Your task to perform on an android device: Clear the shopping cart on bestbuy. Add logitech g910 to the cart on bestbuy, then select checkout. Image 0: 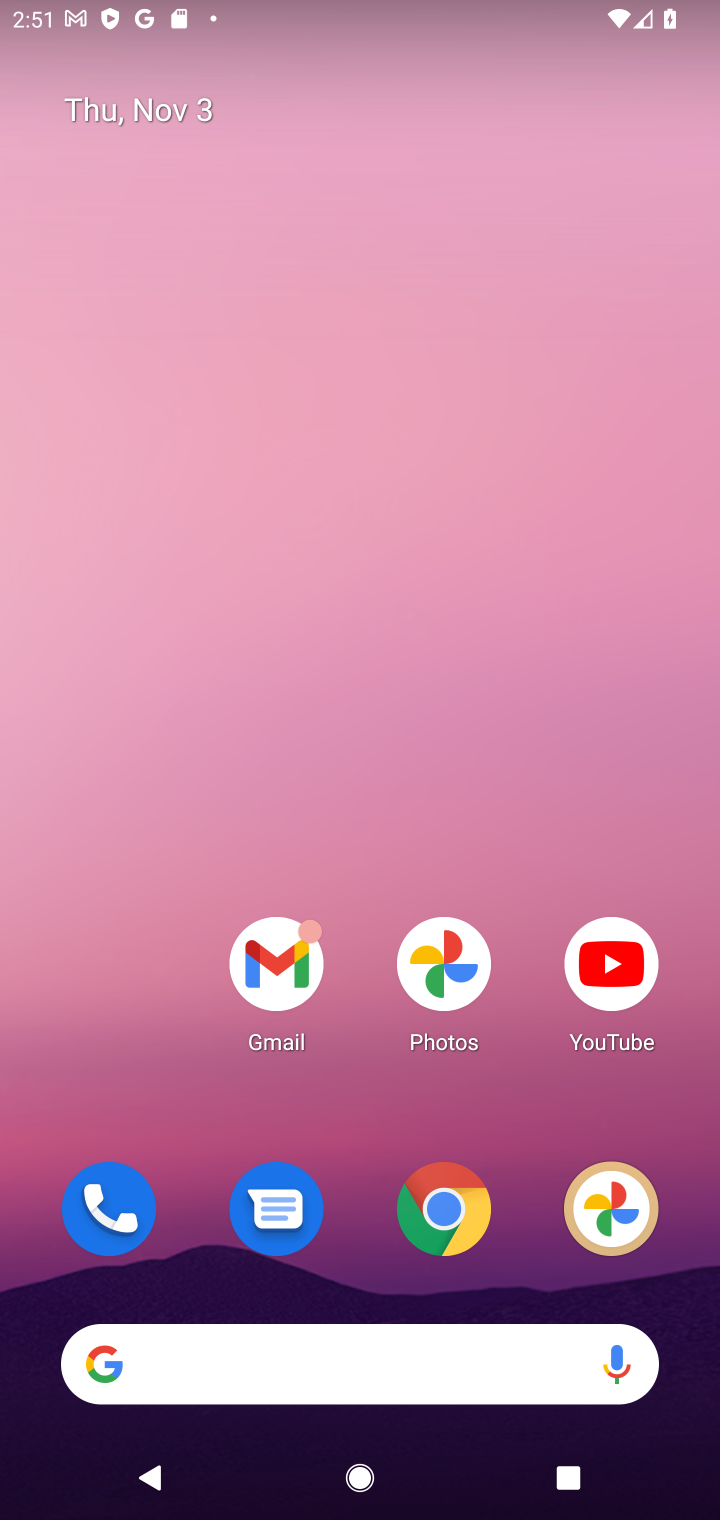
Step 0: click (433, 1215)
Your task to perform on an android device: Clear the shopping cart on bestbuy. Add logitech g910 to the cart on bestbuy, then select checkout. Image 1: 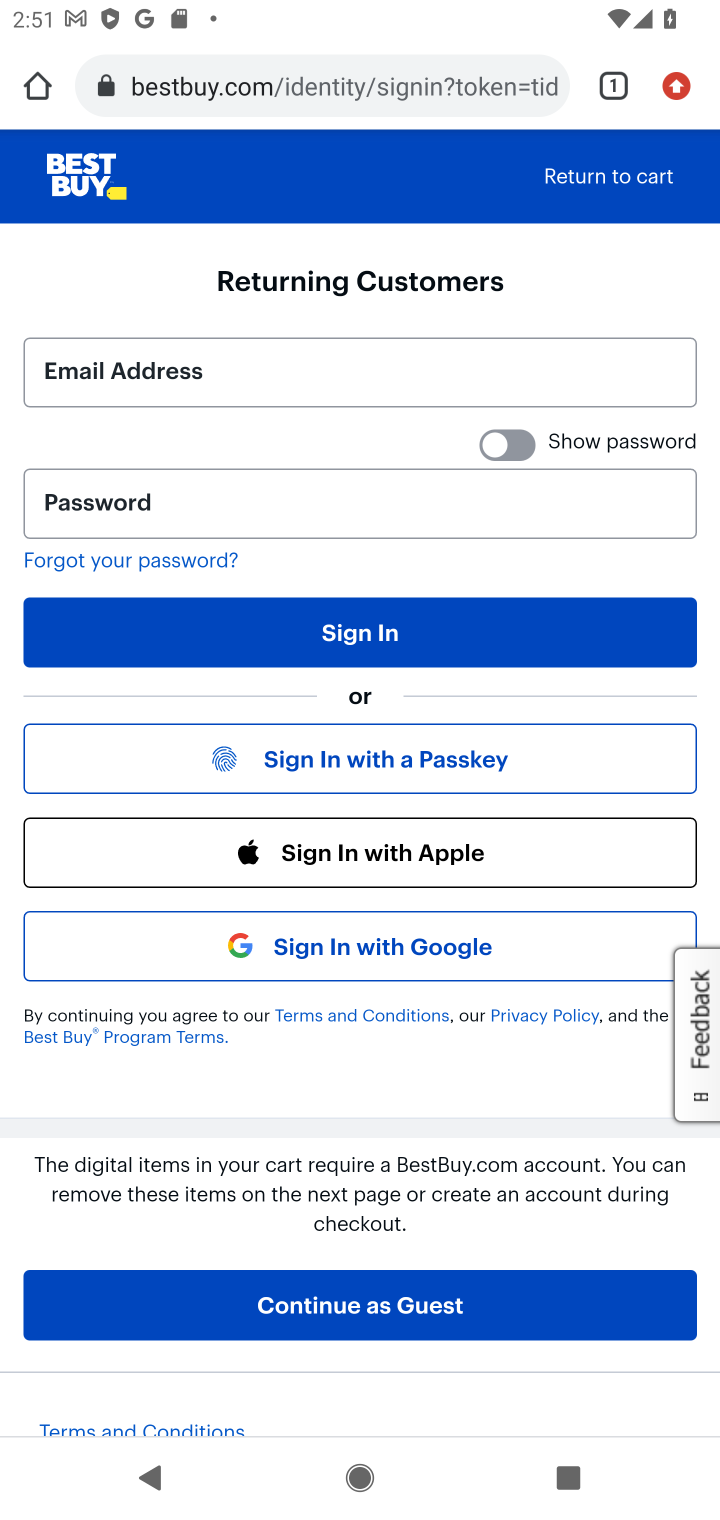
Step 1: click (579, 181)
Your task to perform on an android device: Clear the shopping cart on bestbuy. Add logitech g910 to the cart on bestbuy, then select checkout. Image 2: 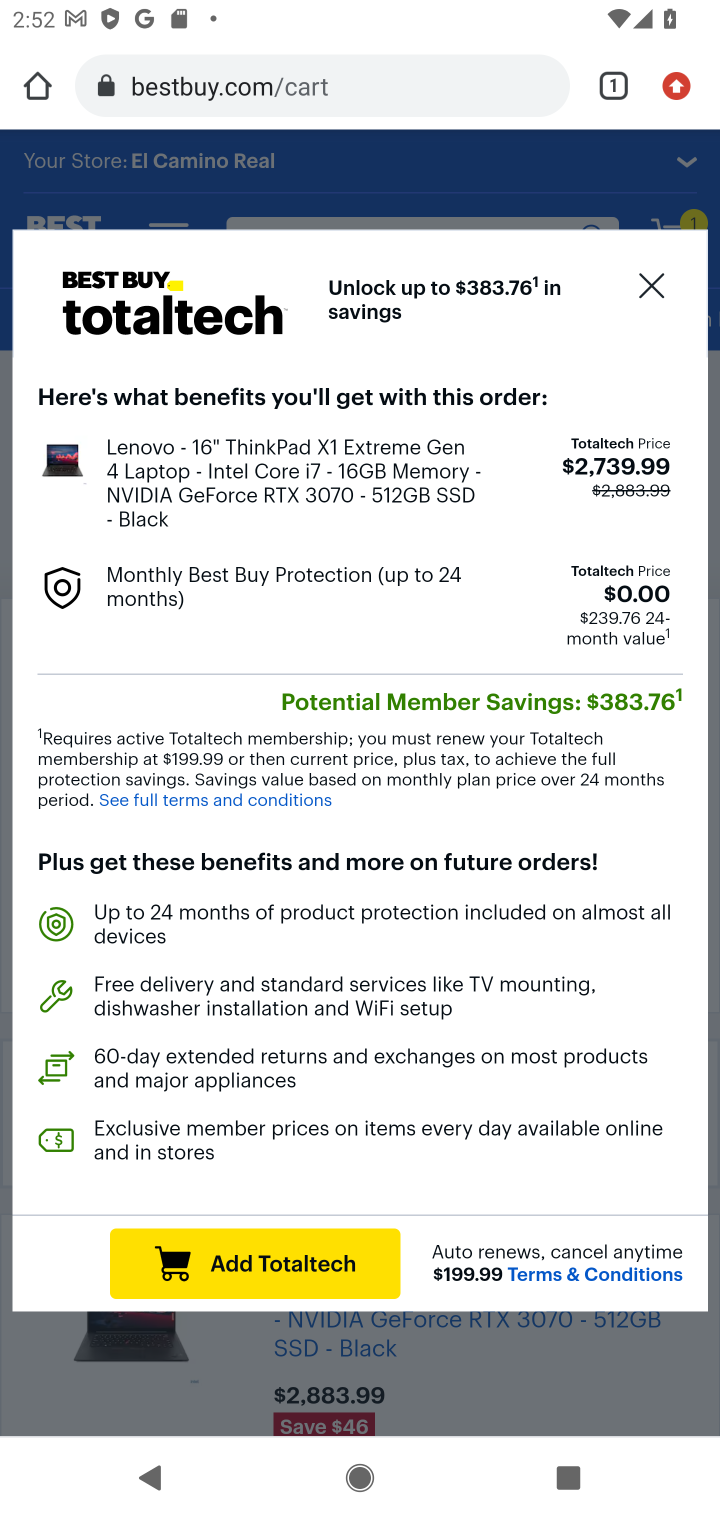
Step 2: click (664, 285)
Your task to perform on an android device: Clear the shopping cart on bestbuy. Add logitech g910 to the cart on bestbuy, then select checkout. Image 3: 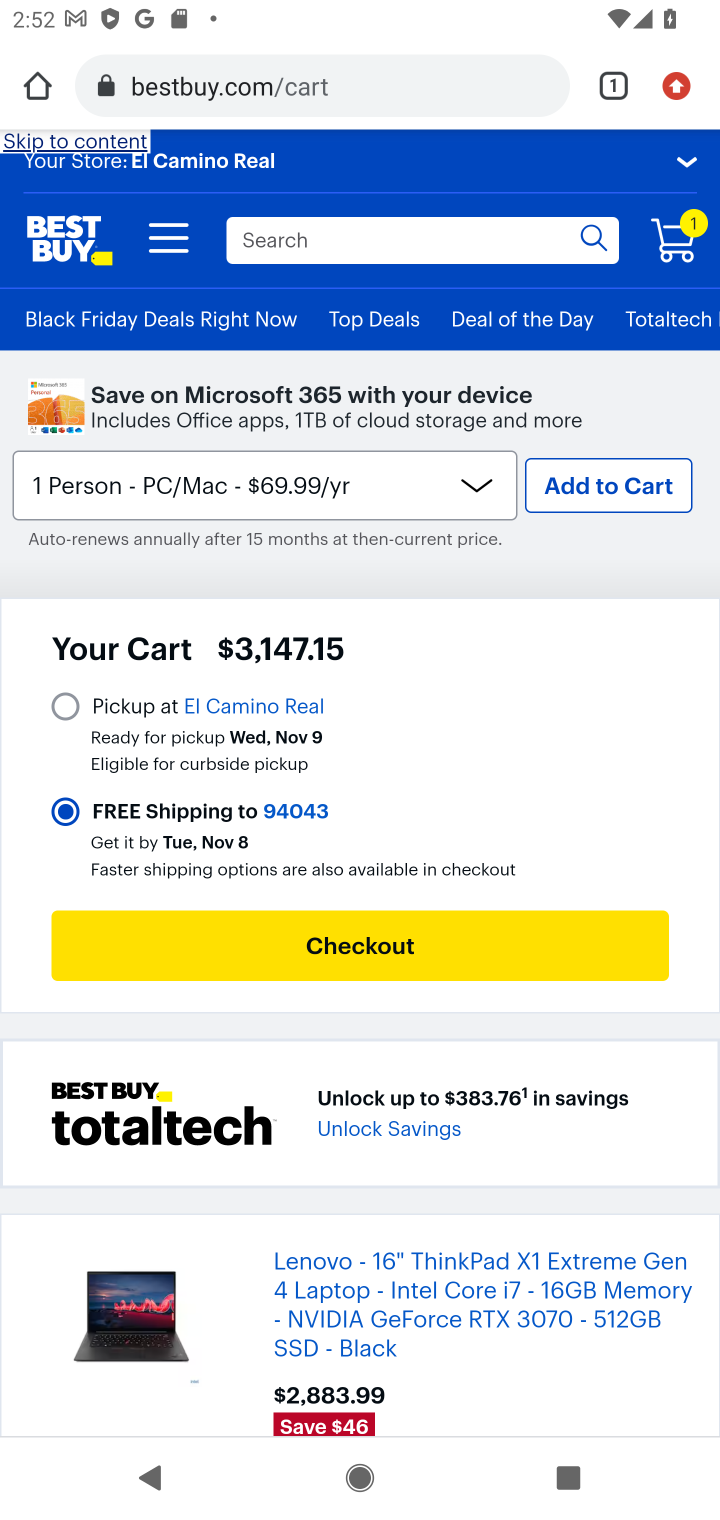
Step 3: drag from (448, 940) to (453, 487)
Your task to perform on an android device: Clear the shopping cart on bestbuy. Add logitech g910 to the cart on bestbuy, then select checkout. Image 4: 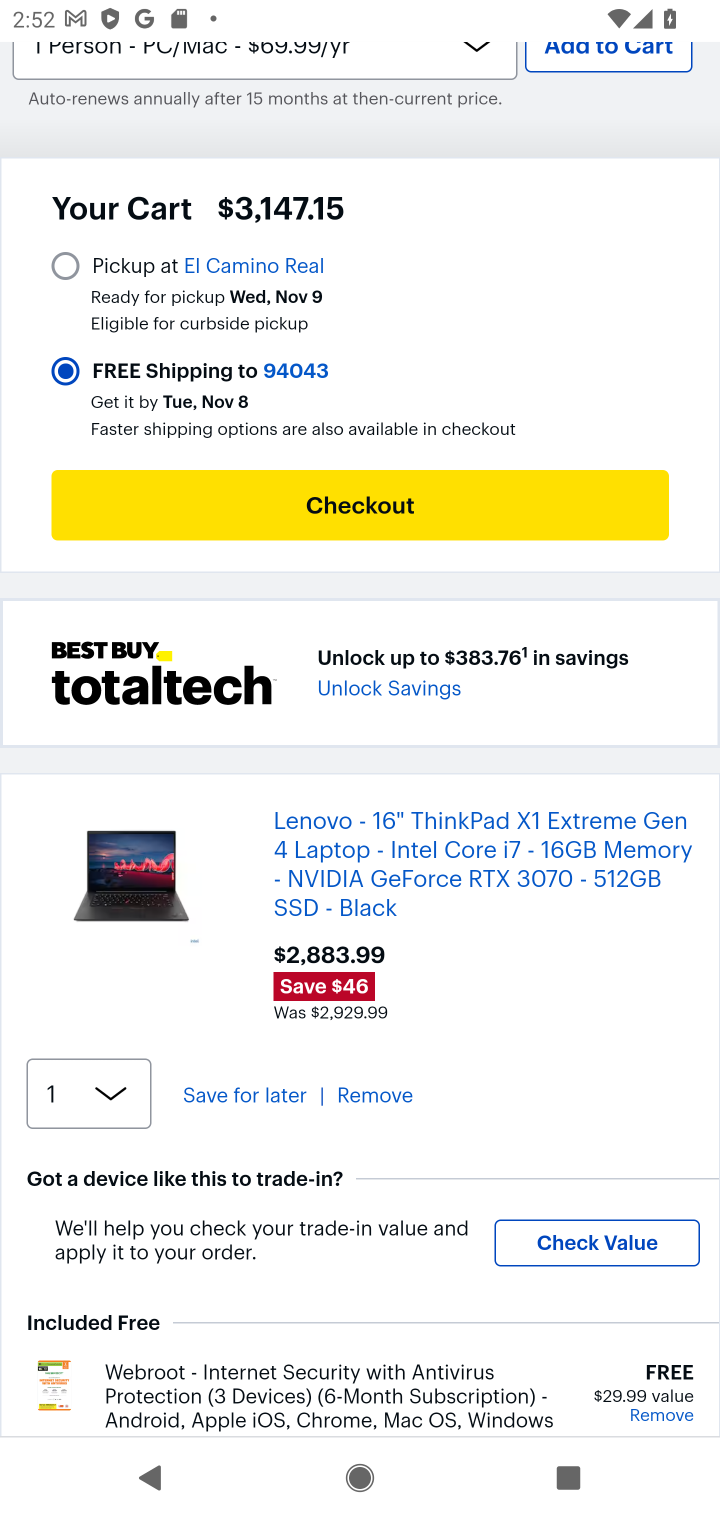
Step 4: click (367, 1099)
Your task to perform on an android device: Clear the shopping cart on bestbuy. Add logitech g910 to the cart on bestbuy, then select checkout. Image 5: 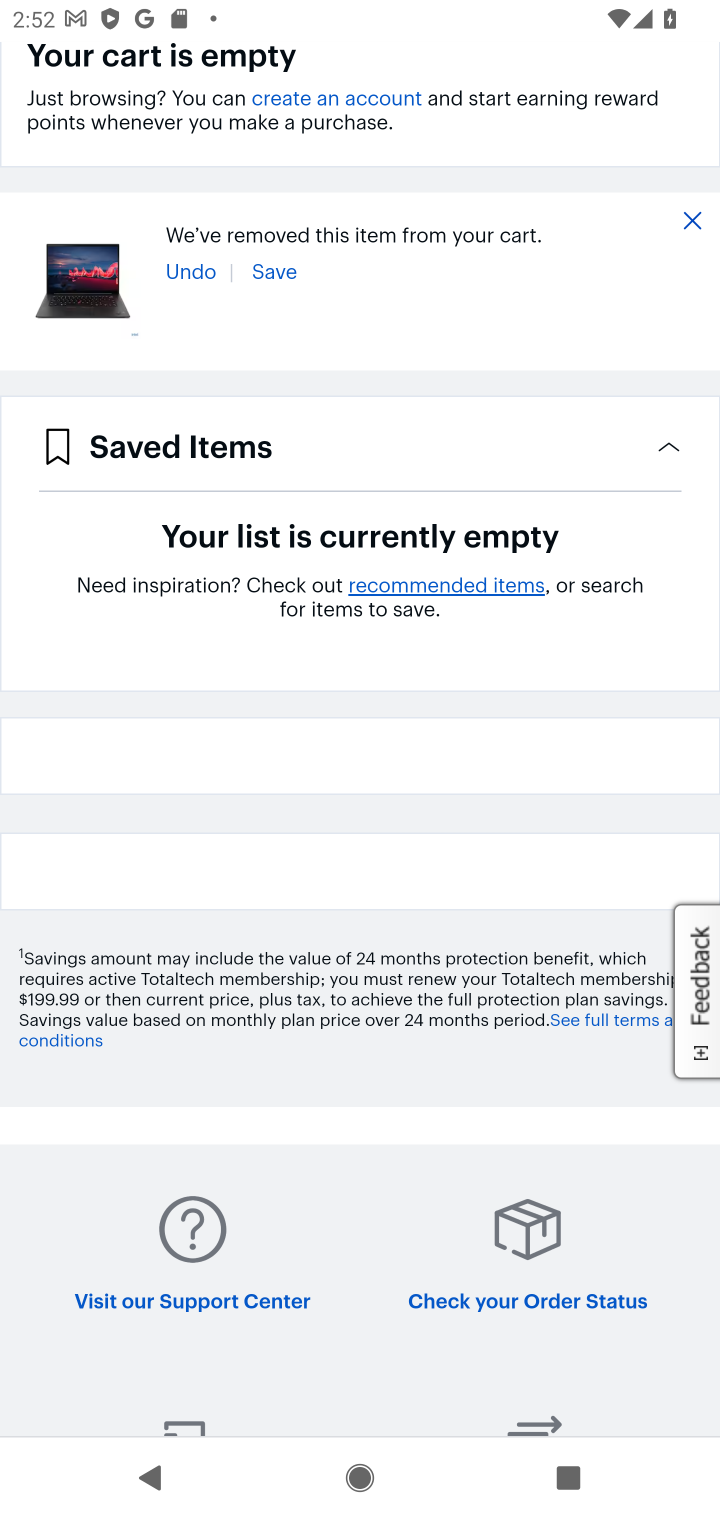
Step 5: drag from (414, 266) to (493, 1140)
Your task to perform on an android device: Clear the shopping cart on bestbuy. Add logitech g910 to the cart on bestbuy, then select checkout. Image 6: 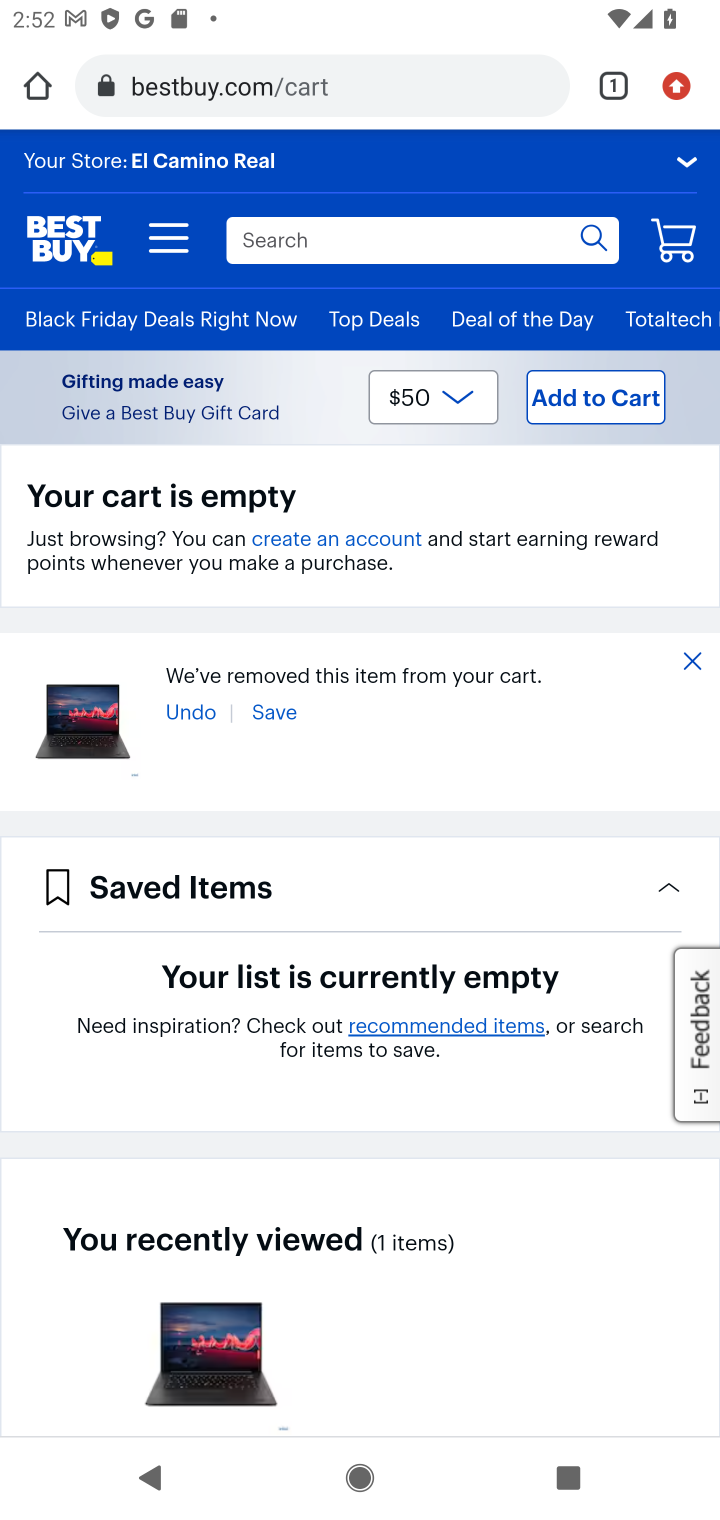
Step 6: click (432, 224)
Your task to perform on an android device: Clear the shopping cart on bestbuy. Add logitech g910 to the cart on bestbuy, then select checkout. Image 7: 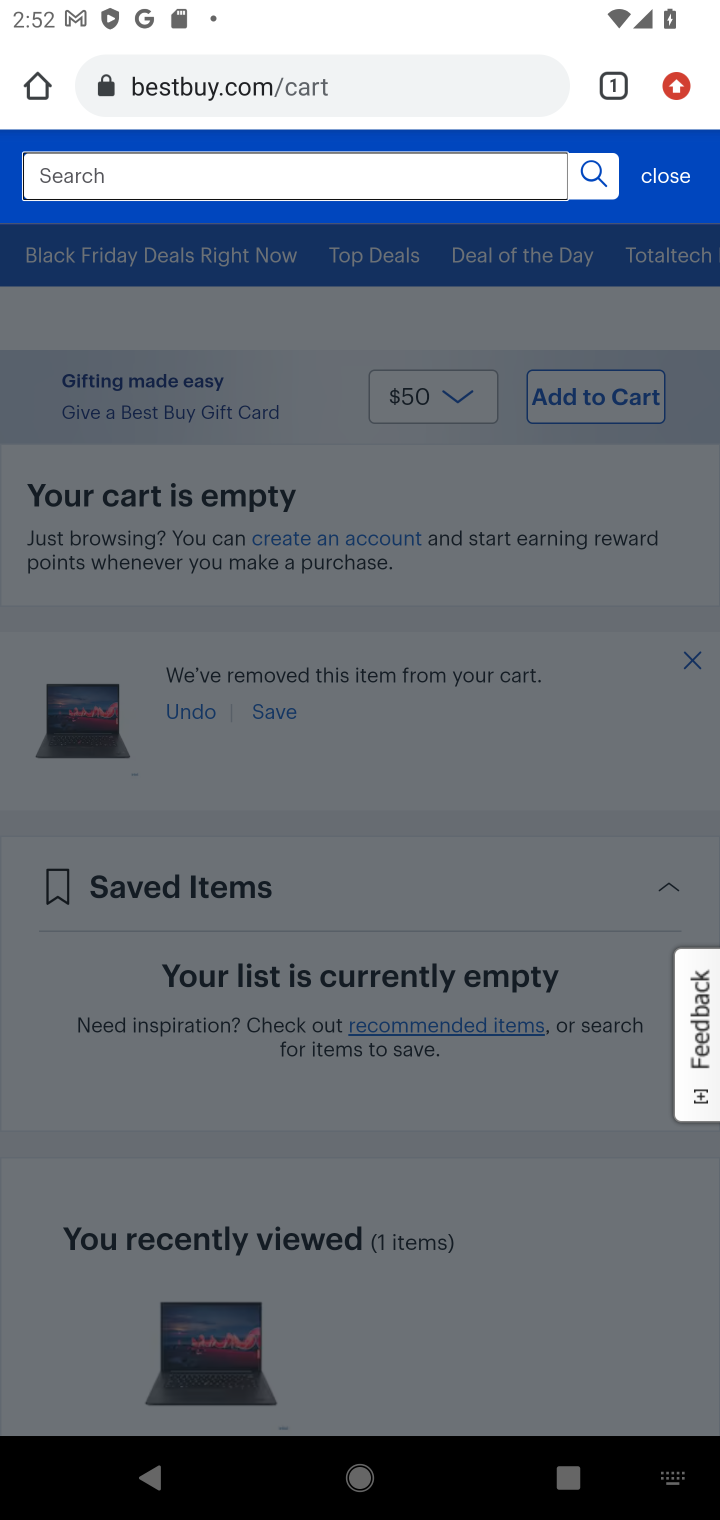
Step 7: type "logitech g910"
Your task to perform on an android device: Clear the shopping cart on bestbuy. Add logitech g910 to the cart on bestbuy, then select checkout. Image 8: 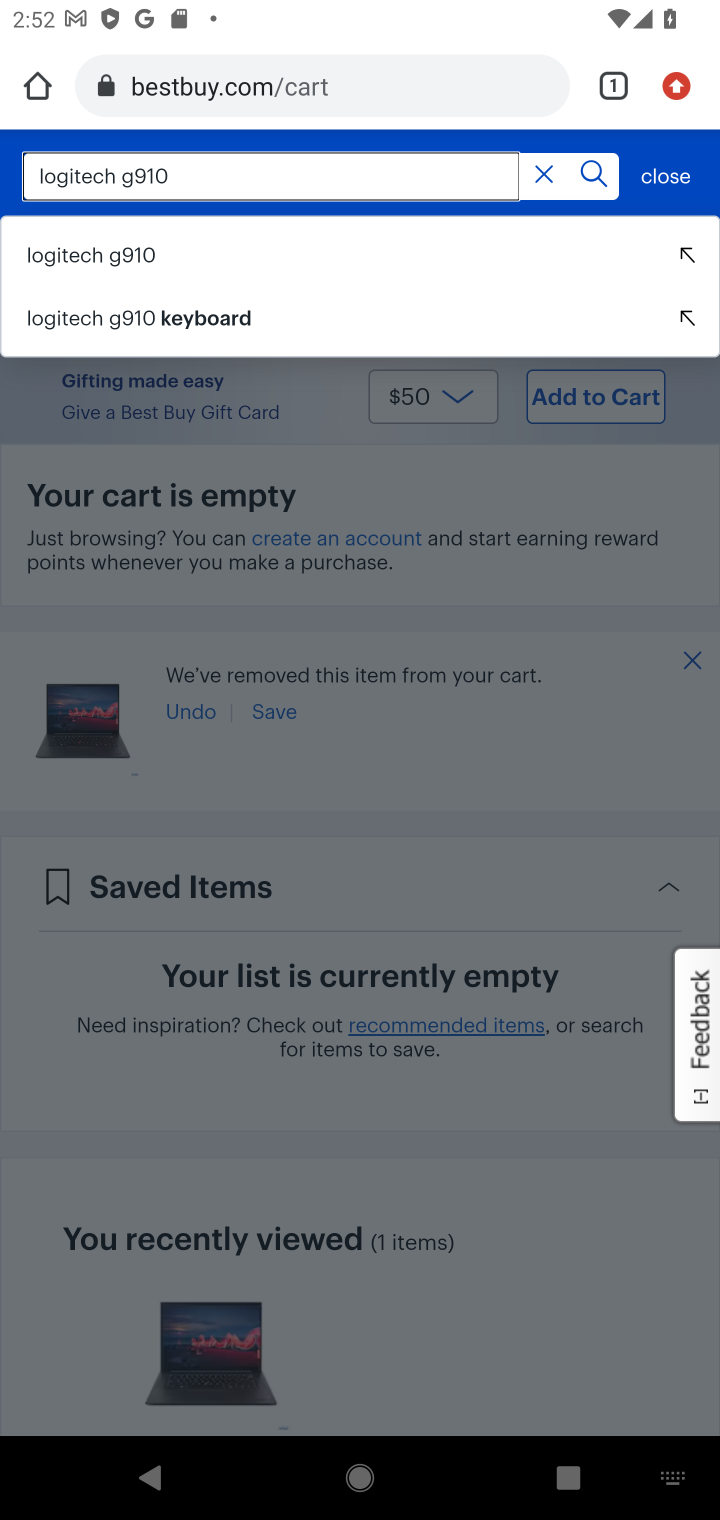
Step 8: click (106, 247)
Your task to perform on an android device: Clear the shopping cart on bestbuy. Add logitech g910 to the cart on bestbuy, then select checkout. Image 9: 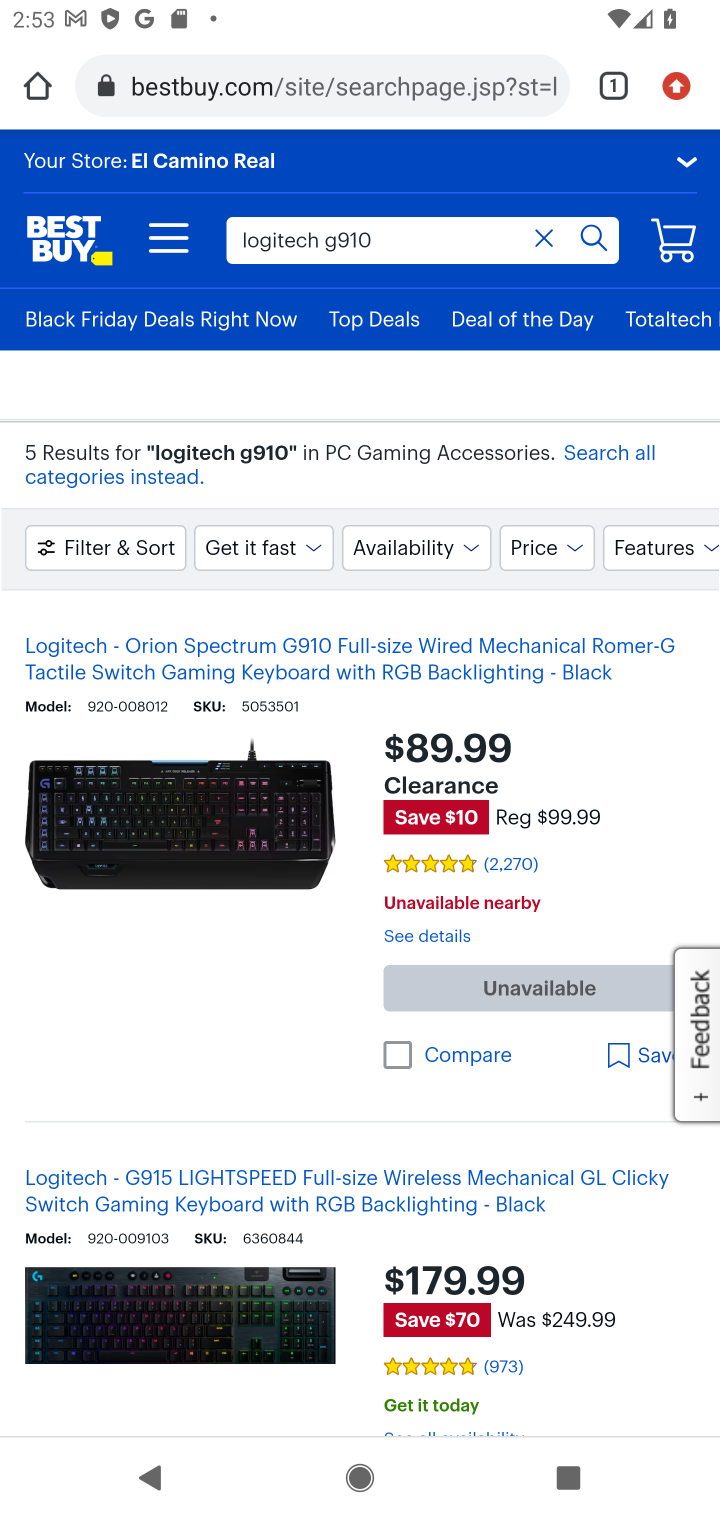
Step 9: click (281, 726)
Your task to perform on an android device: Clear the shopping cart on bestbuy. Add logitech g910 to the cart on bestbuy, then select checkout. Image 10: 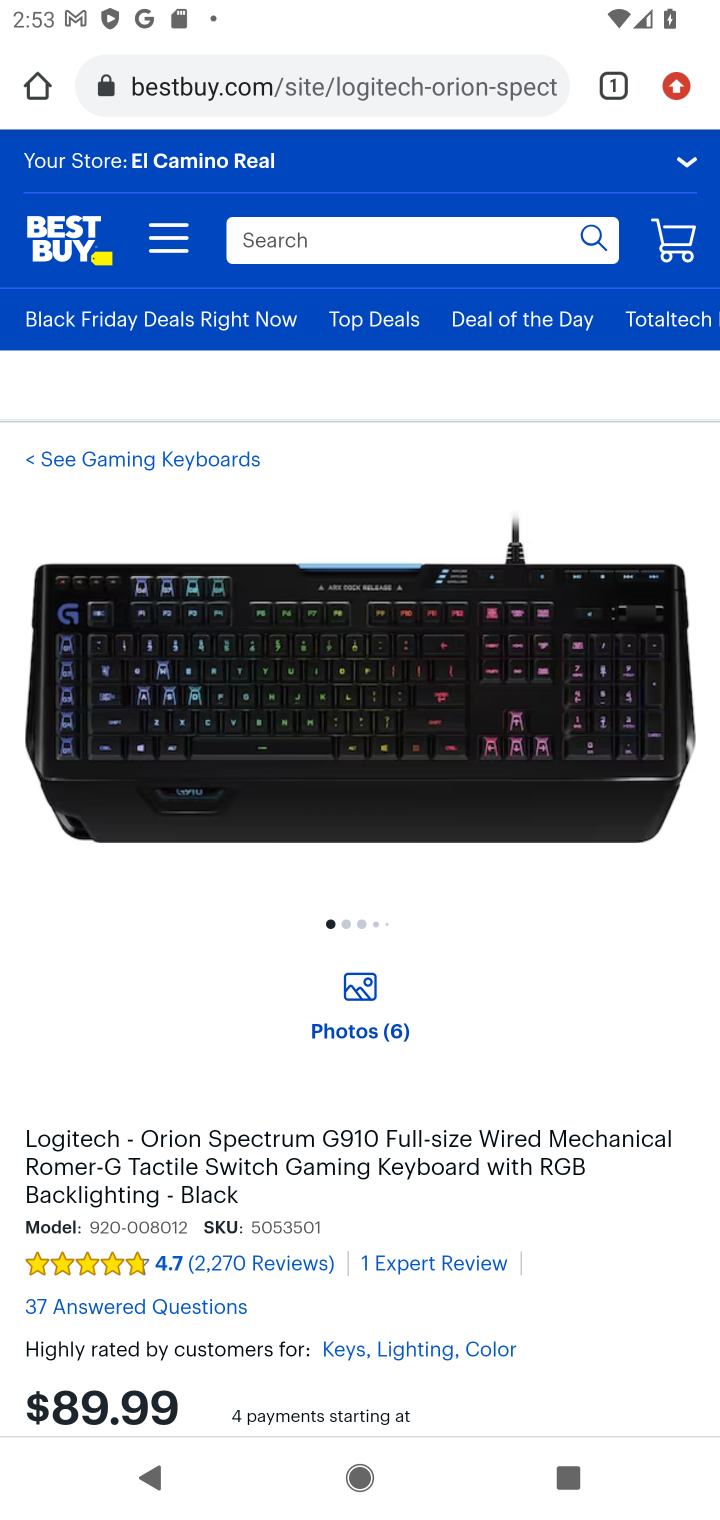
Step 10: task complete